Your task to perform on an android device: Open Youtube and go to the subscriptions tab Image 0: 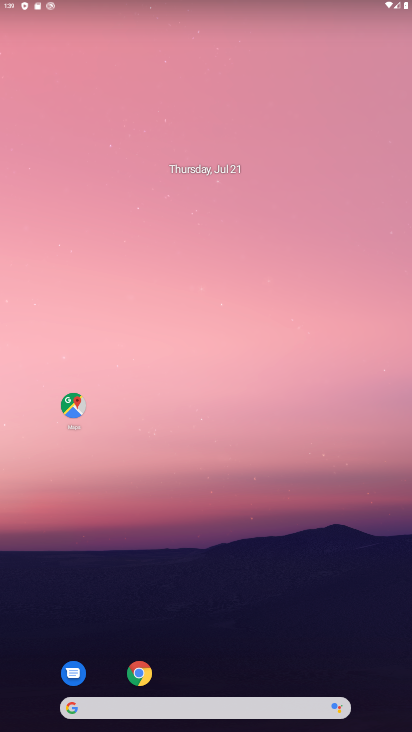
Step 0: drag from (203, 650) to (271, 357)
Your task to perform on an android device: Open Youtube and go to the subscriptions tab Image 1: 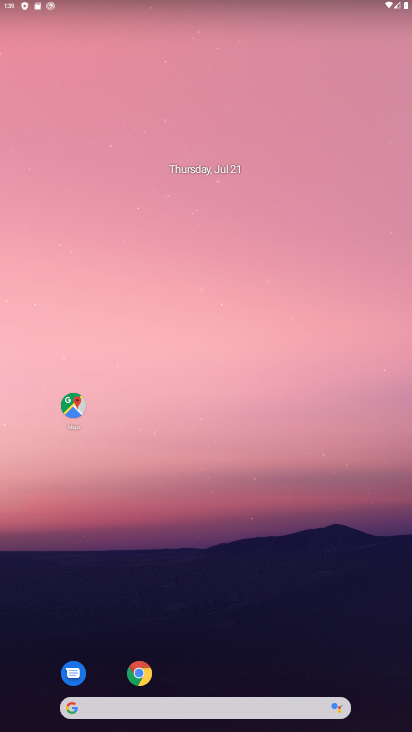
Step 1: drag from (197, 580) to (189, 301)
Your task to perform on an android device: Open Youtube and go to the subscriptions tab Image 2: 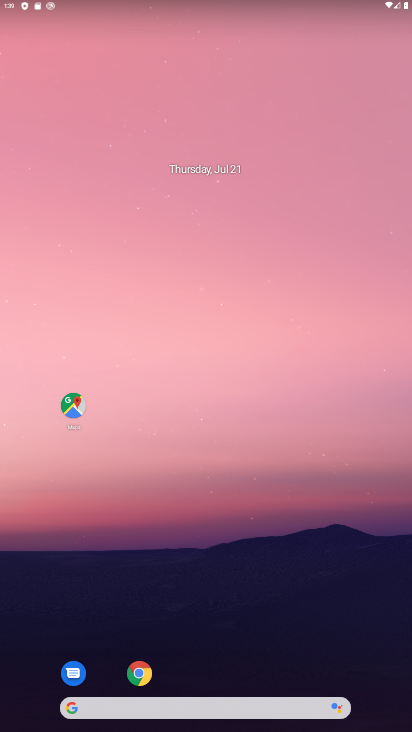
Step 2: drag from (190, 660) to (186, 61)
Your task to perform on an android device: Open Youtube and go to the subscriptions tab Image 3: 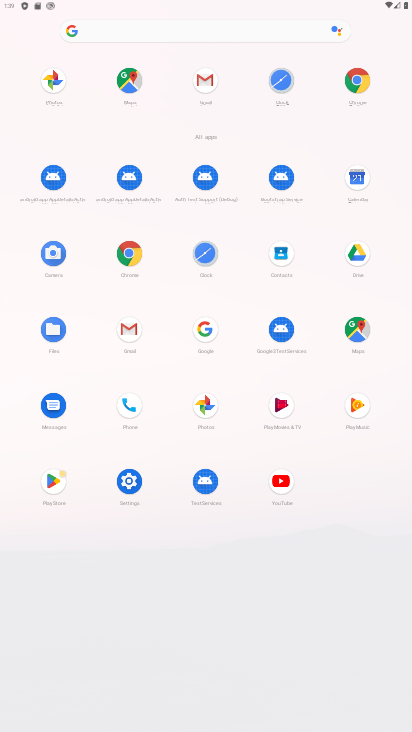
Step 3: click (274, 266)
Your task to perform on an android device: Open Youtube and go to the subscriptions tab Image 4: 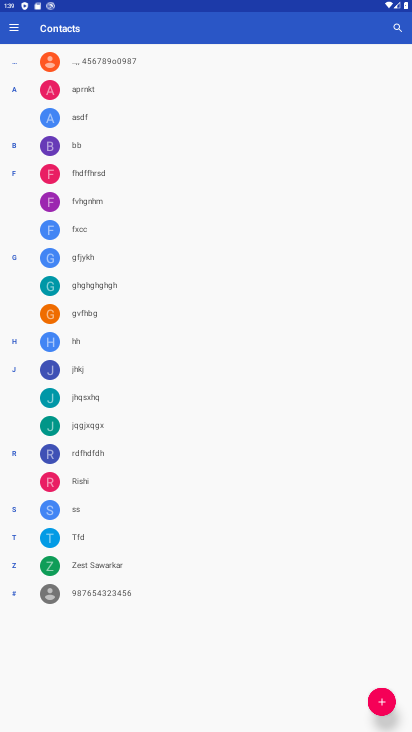
Step 4: click (375, 702)
Your task to perform on an android device: Open Youtube and go to the subscriptions tab Image 5: 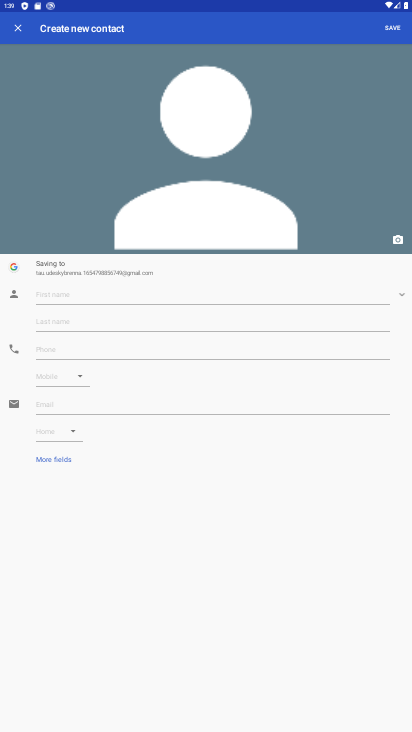
Step 5: click (96, 295)
Your task to perform on an android device: Open Youtube and go to the subscriptions tab Image 6: 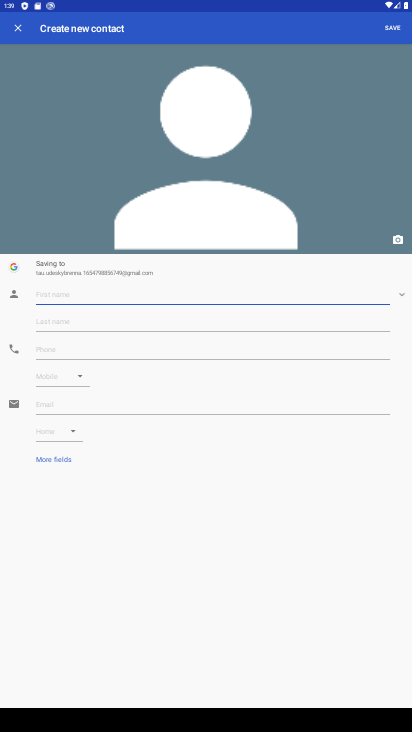
Step 6: type "Rakesh"
Your task to perform on an android device: Open Youtube and go to the subscriptions tab Image 7: 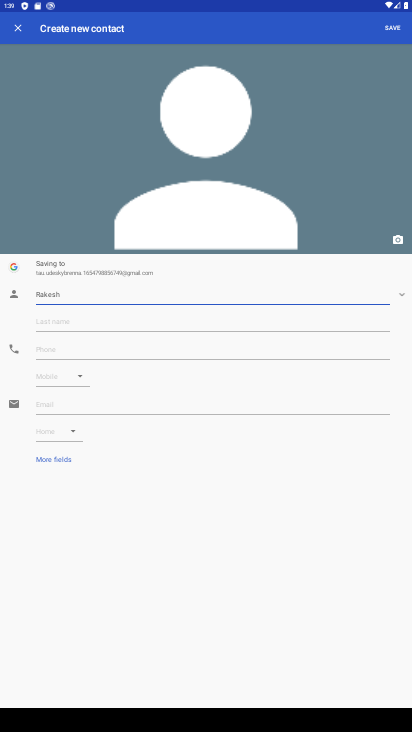
Step 7: click (145, 346)
Your task to perform on an android device: Open Youtube and go to the subscriptions tab Image 8: 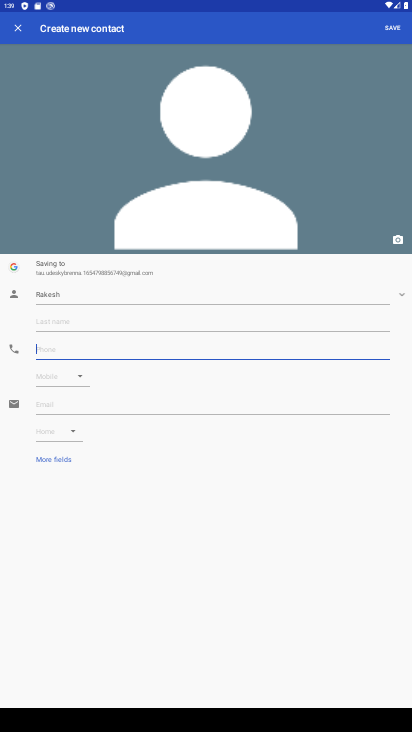
Step 8: type "7575676790"
Your task to perform on an android device: Open Youtube and go to the subscriptions tab Image 9: 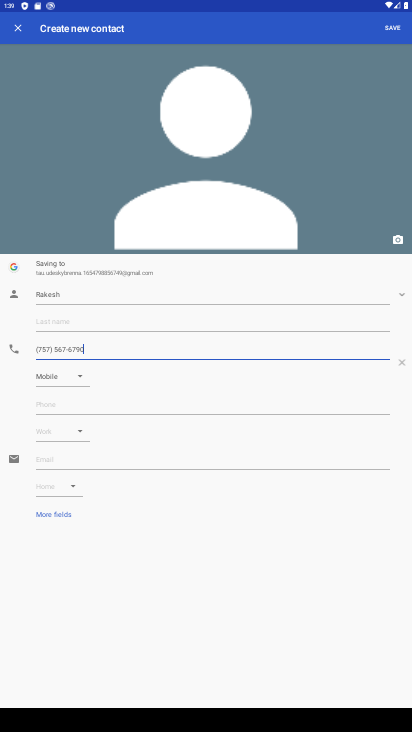
Step 9: click (399, 29)
Your task to perform on an android device: Open Youtube and go to the subscriptions tab Image 10: 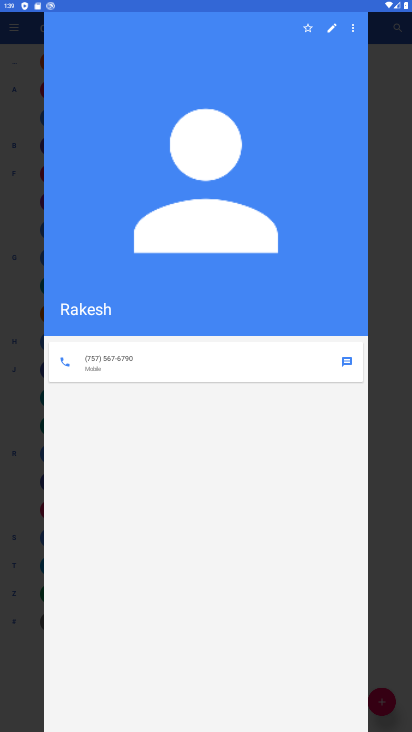
Step 10: task complete